Your task to perform on an android device: Open Amazon Image 0: 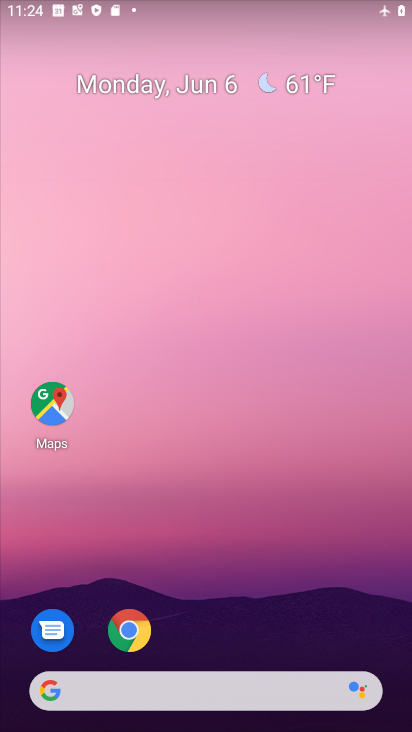
Step 0: drag from (361, 584) to (373, 183)
Your task to perform on an android device: Open Amazon Image 1: 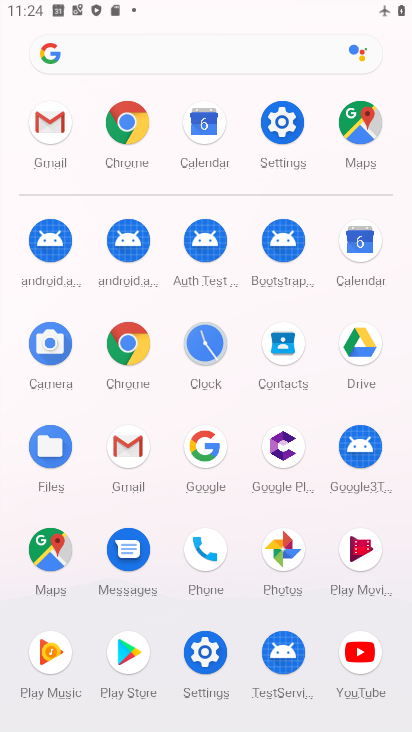
Step 1: click (121, 356)
Your task to perform on an android device: Open Amazon Image 2: 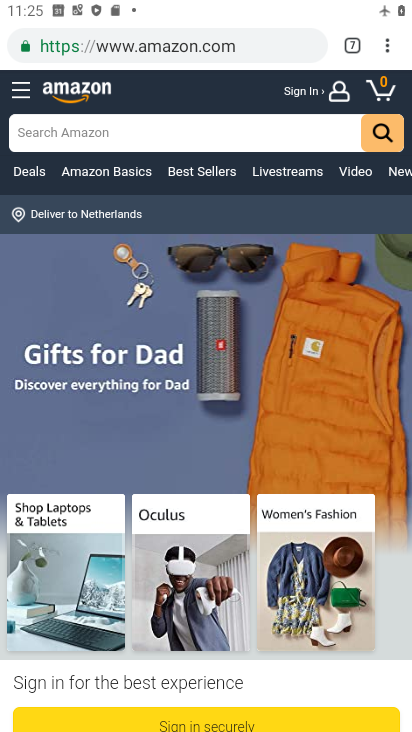
Step 2: task complete